Your task to perform on an android device: check android version Image 0: 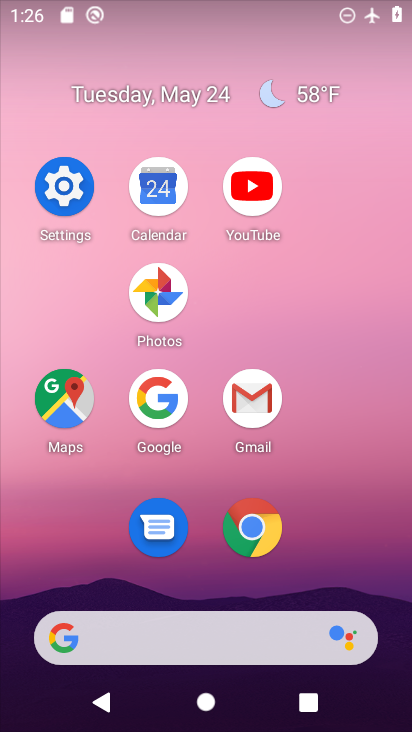
Step 0: click (67, 185)
Your task to perform on an android device: check android version Image 1: 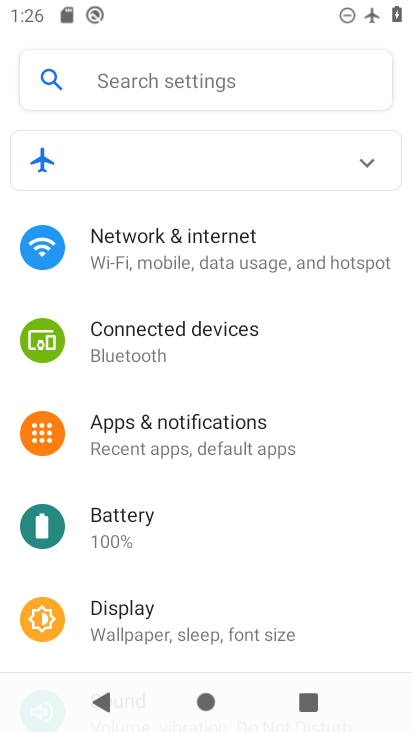
Step 1: drag from (205, 522) to (266, 165)
Your task to perform on an android device: check android version Image 2: 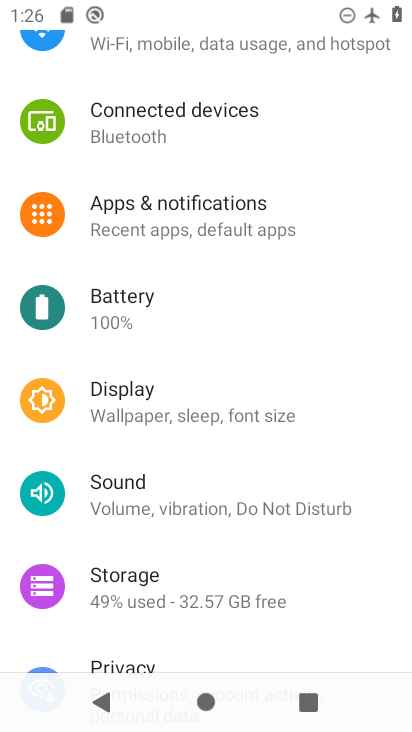
Step 2: drag from (150, 553) to (193, 182)
Your task to perform on an android device: check android version Image 3: 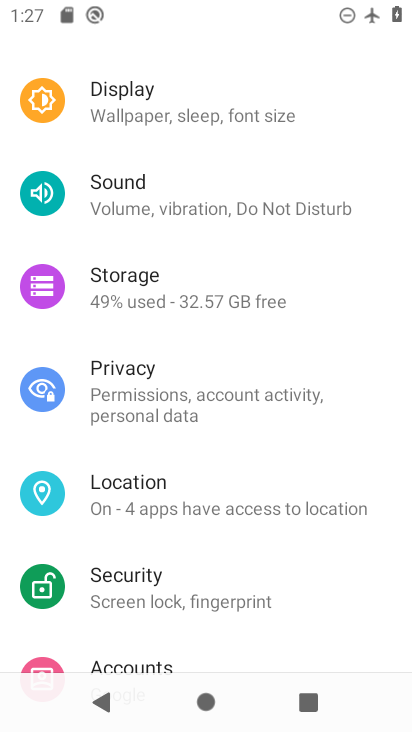
Step 3: drag from (130, 542) to (167, 125)
Your task to perform on an android device: check android version Image 4: 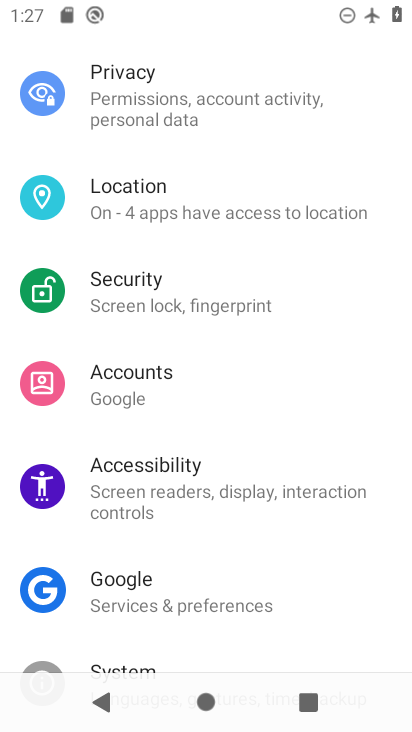
Step 4: drag from (195, 630) to (231, 120)
Your task to perform on an android device: check android version Image 5: 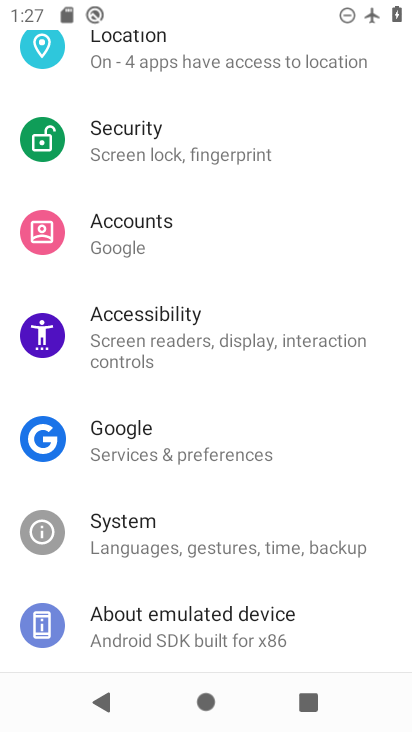
Step 5: click (139, 606)
Your task to perform on an android device: check android version Image 6: 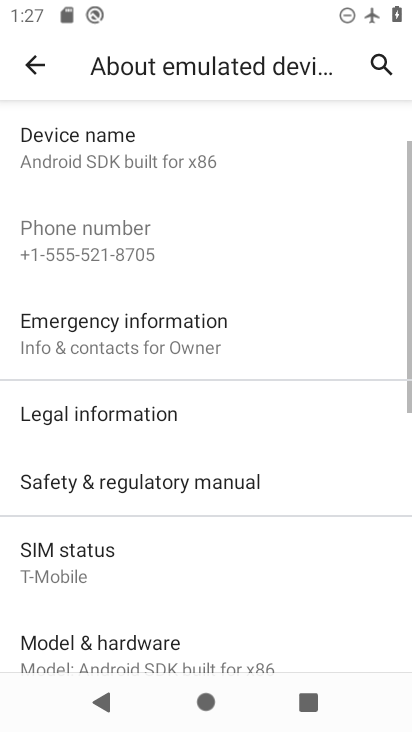
Step 6: drag from (124, 594) to (215, 192)
Your task to perform on an android device: check android version Image 7: 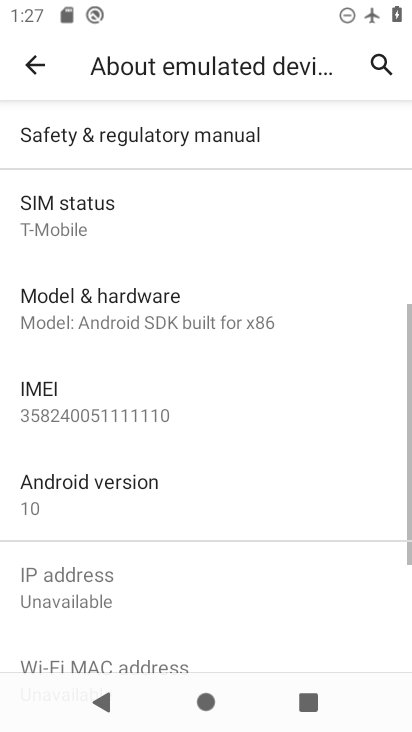
Step 7: click (57, 489)
Your task to perform on an android device: check android version Image 8: 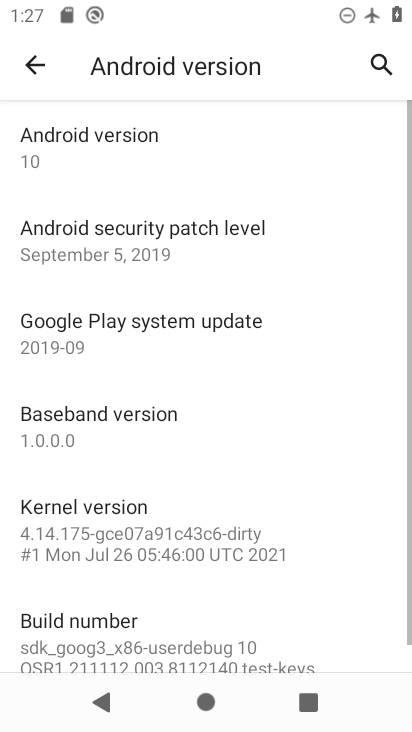
Step 8: task complete